Your task to perform on an android device: Open privacy settings Image 0: 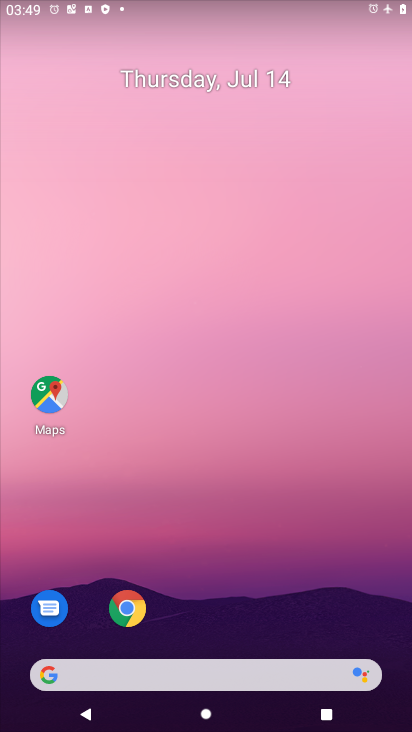
Step 0: drag from (382, 619) to (312, 237)
Your task to perform on an android device: Open privacy settings Image 1: 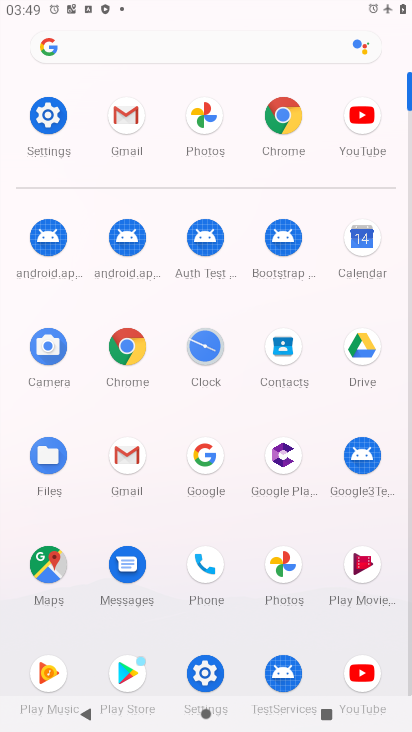
Step 1: click (207, 675)
Your task to perform on an android device: Open privacy settings Image 2: 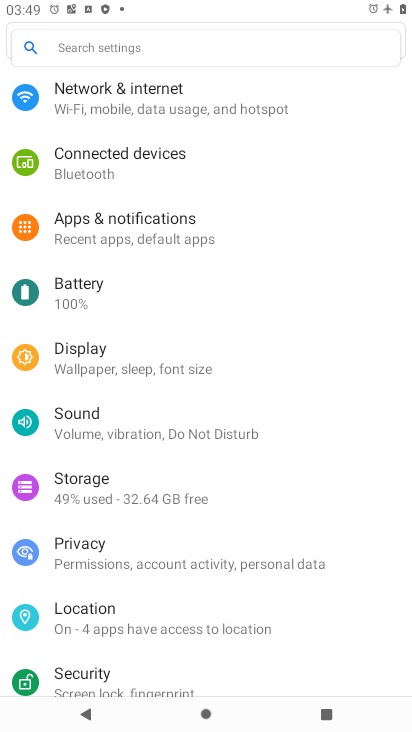
Step 2: click (94, 546)
Your task to perform on an android device: Open privacy settings Image 3: 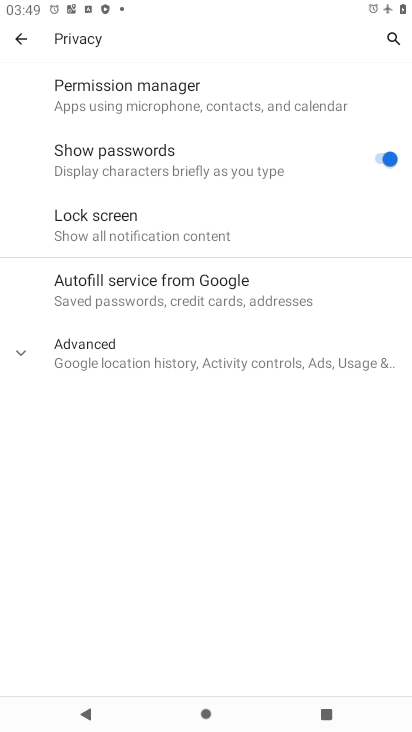
Step 3: click (18, 351)
Your task to perform on an android device: Open privacy settings Image 4: 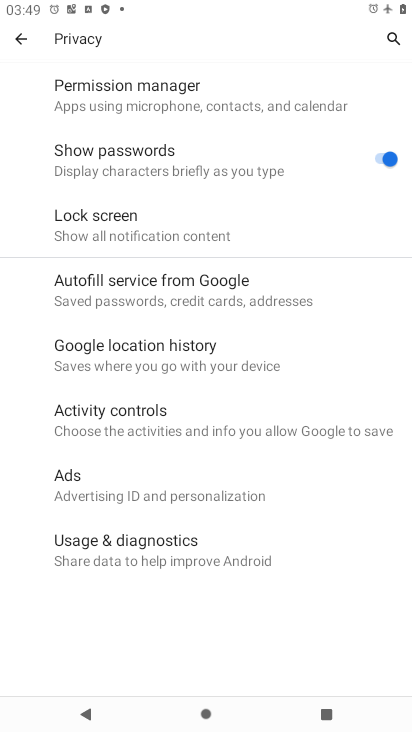
Step 4: task complete